Your task to perform on an android device: check the backup settings in the google photos Image 0: 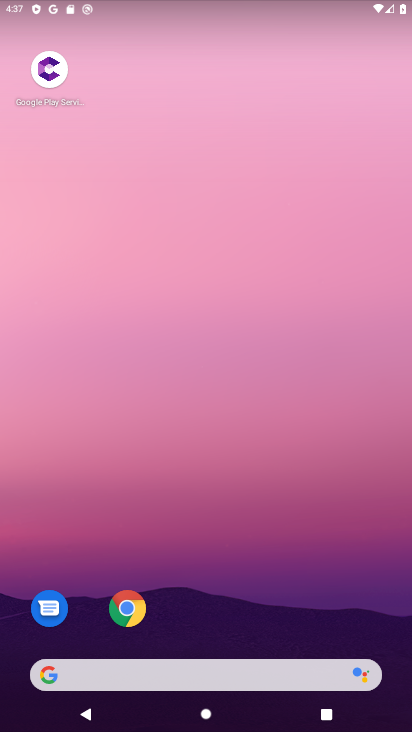
Step 0: drag from (199, 658) to (270, 224)
Your task to perform on an android device: check the backup settings in the google photos Image 1: 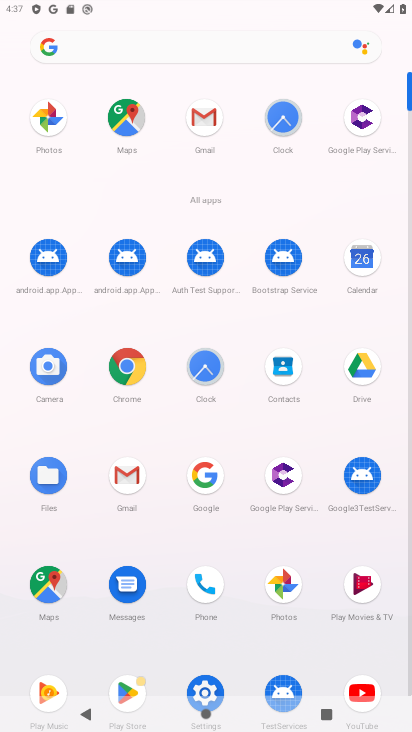
Step 1: click (285, 585)
Your task to perform on an android device: check the backup settings in the google photos Image 2: 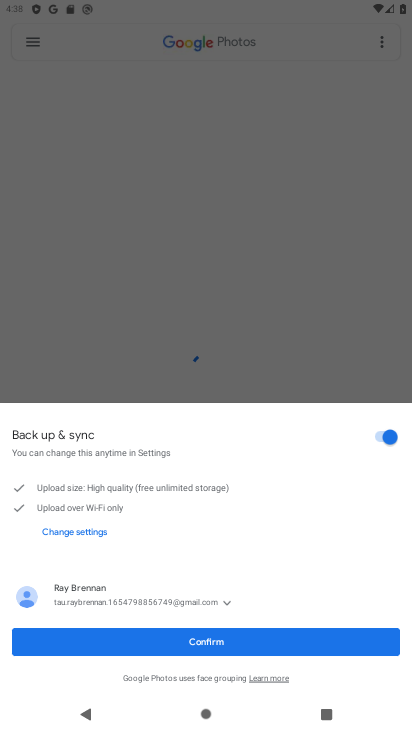
Step 2: click (214, 645)
Your task to perform on an android device: check the backup settings in the google photos Image 3: 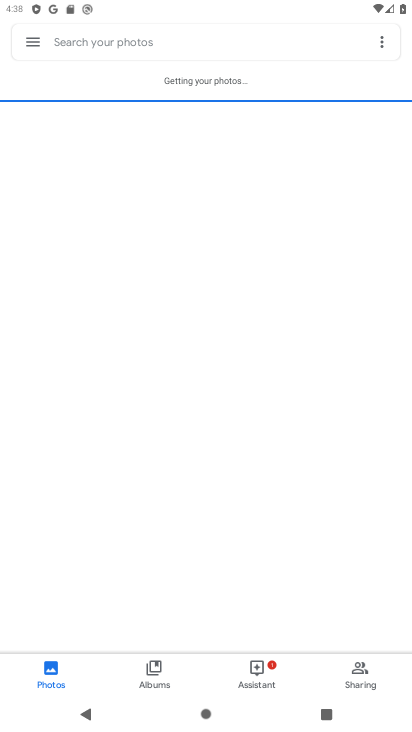
Step 3: click (31, 39)
Your task to perform on an android device: check the backup settings in the google photos Image 4: 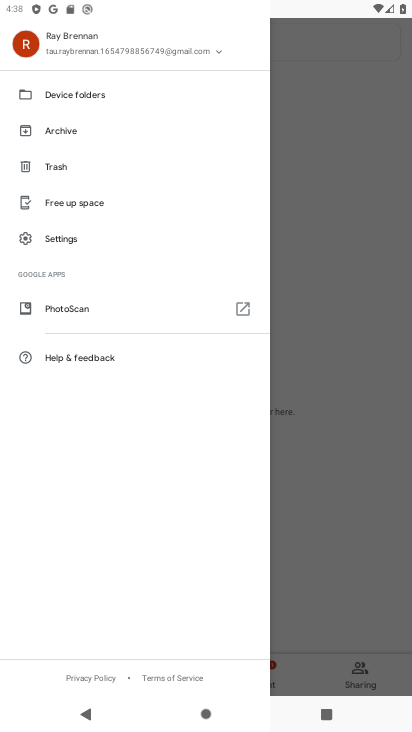
Step 4: click (75, 240)
Your task to perform on an android device: check the backup settings in the google photos Image 5: 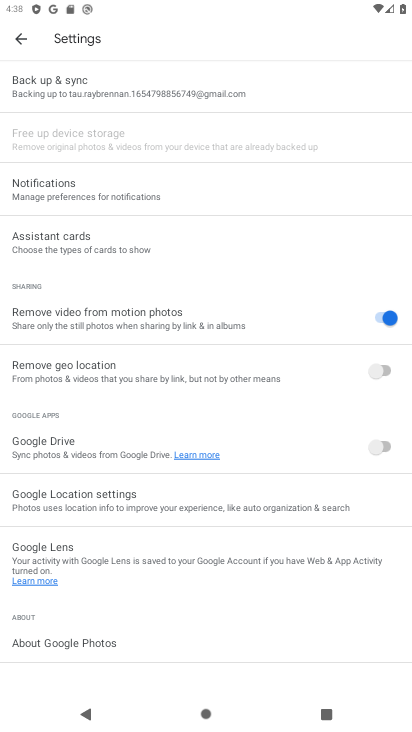
Step 5: click (99, 87)
Your task to perform on an android device: check the backup settings in the google photos Image 6: 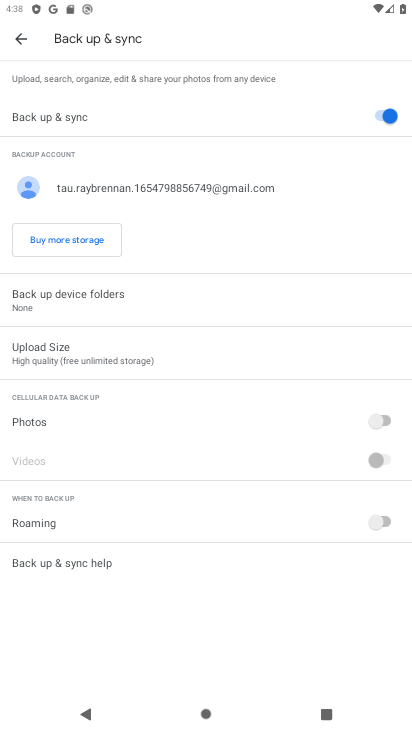
Step 6: task complete